Your task to perform on an android device: toggle wifi Image 0: 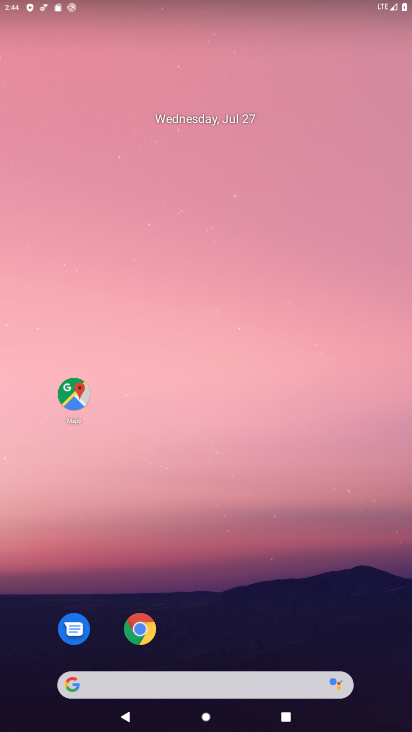
Step 0: drag from (180, 11) to (250, 655)
Your task to perform on an android device: toggle wifi Image 1: 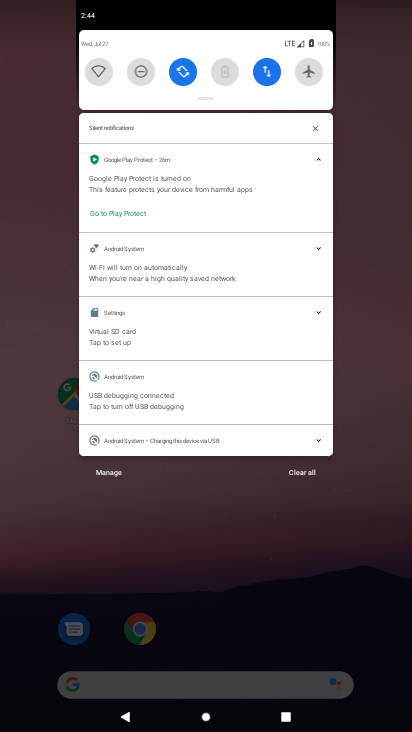
Step 1: click (100, 76)
Your task to perform on an android device: toggle wifi Image 2: 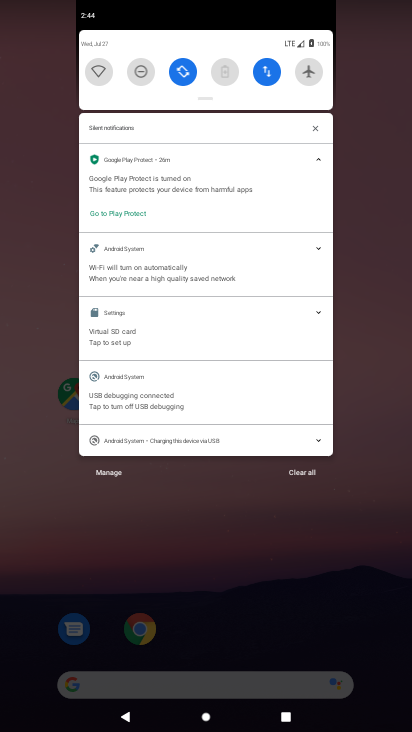
Step 2: click (100, 76)
Your task to perform on an android device: toggle wifi Image 3: 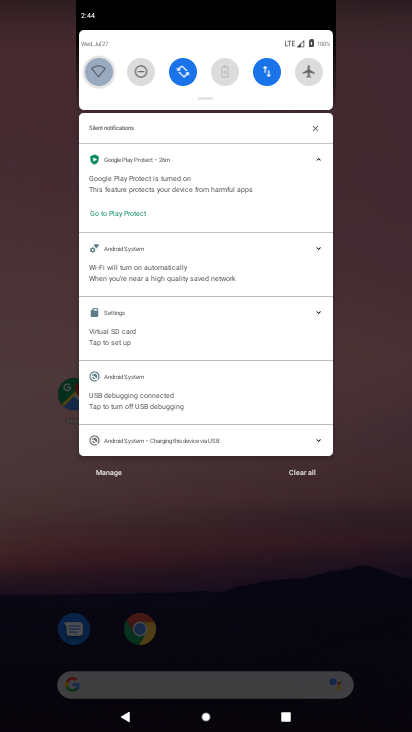
Step 3: click (100, 76)
Your task to perform on an android device: toggle wifi Image 4: 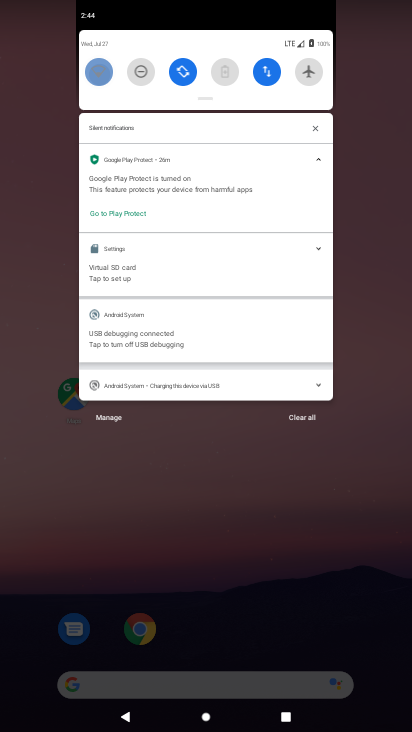
Step 4: click (100, 76)
Your task to perform on an android device: toggle wifi Image 5: 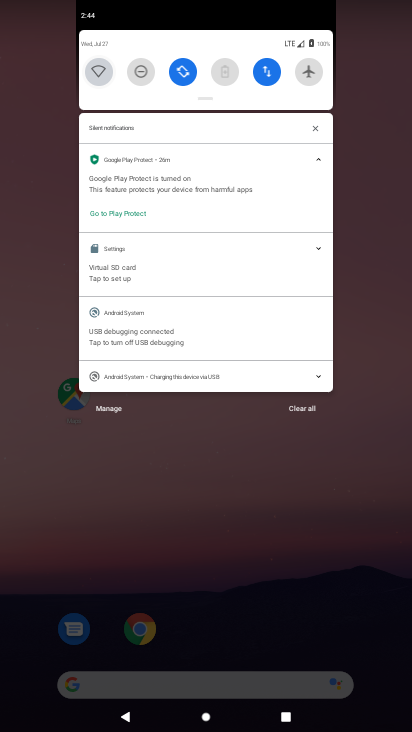
Step 5: click (100, 76)
Your task to perform on an android device: toggle wifi Image 6: 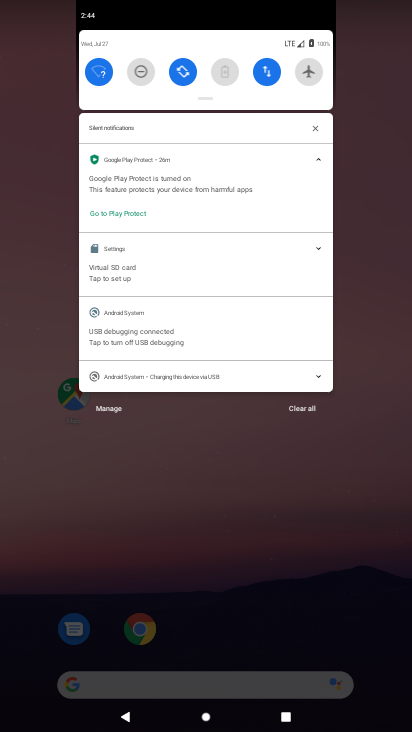
Step 6: task complete